Your task to perform on an android device: turn off priority inbox in the gmail app Image 0: 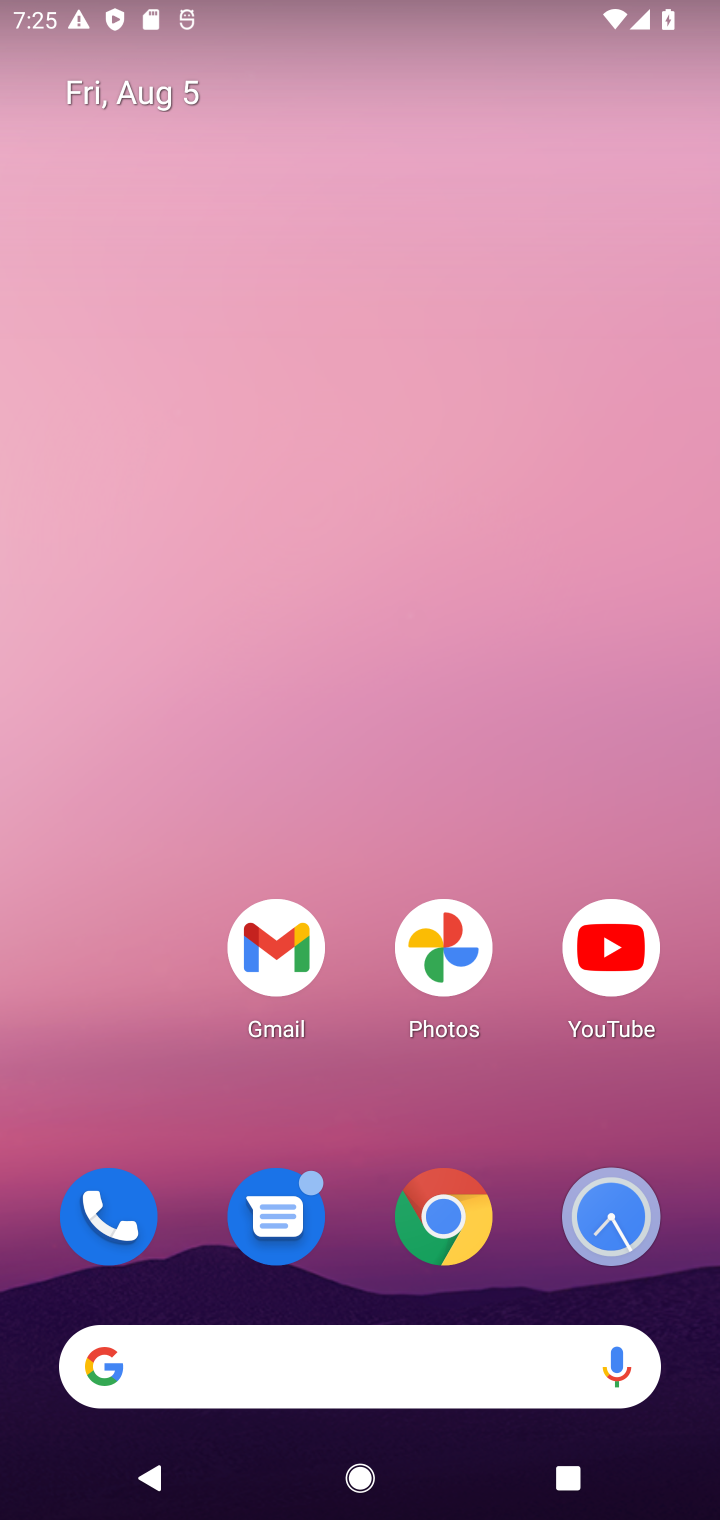
Step 0: click (251, 949)
Your task to perform on an android device: turn off priority inbox in the gmail app Image 1: 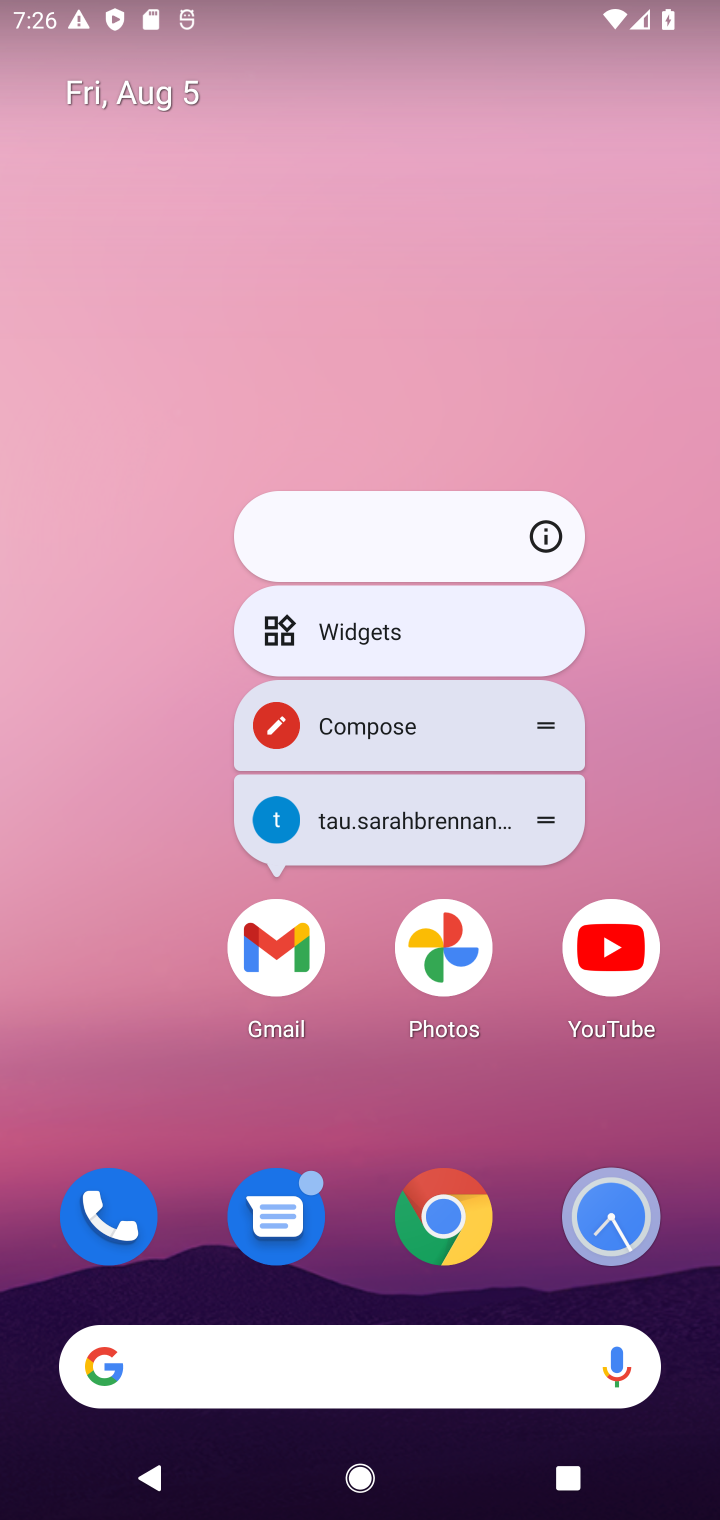
Step 1: click (284, 958)
Your task to perform on an android device: turn off priority inbox in the gmail app Image 2: 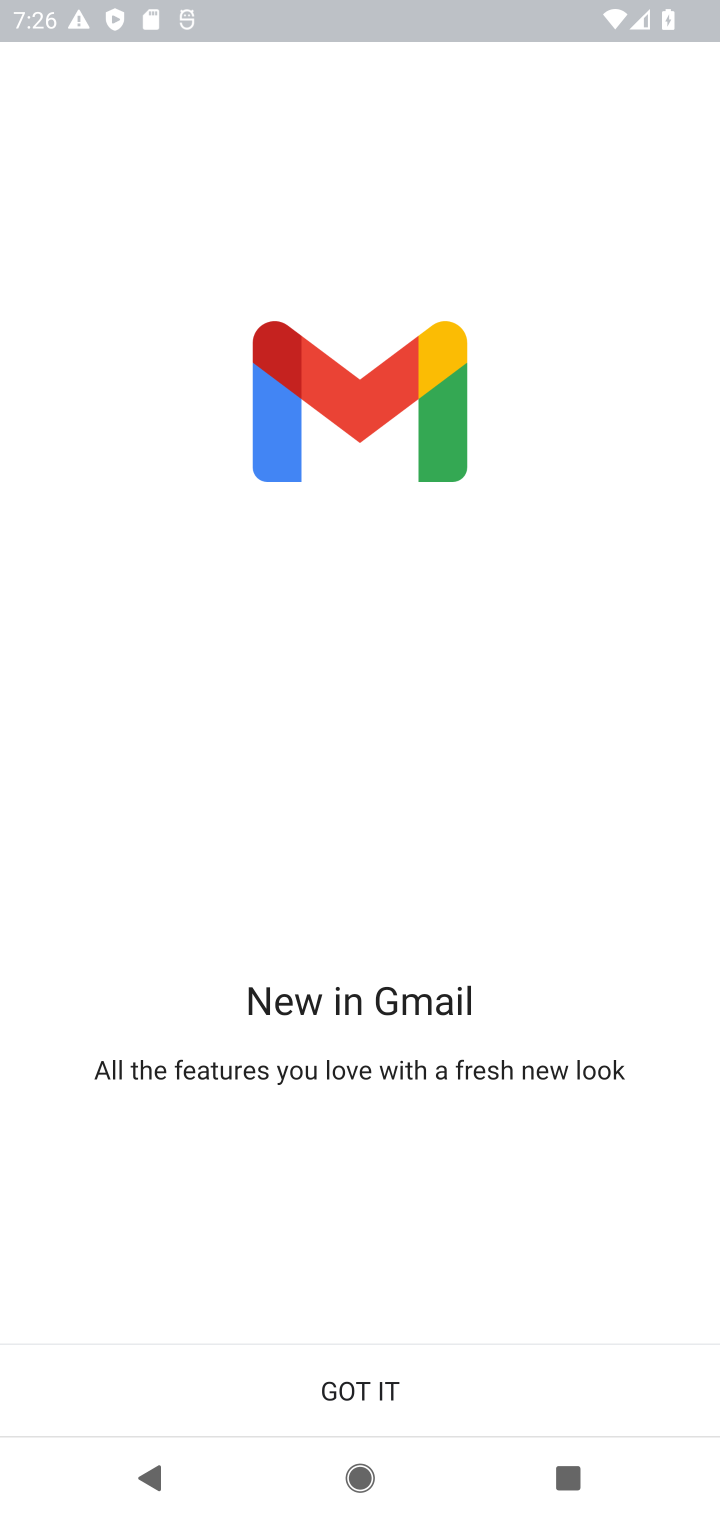
Step 2: click (470, 1379)
Your task to perform on an android device: turn off priority inbox in the gmail app Image 3: 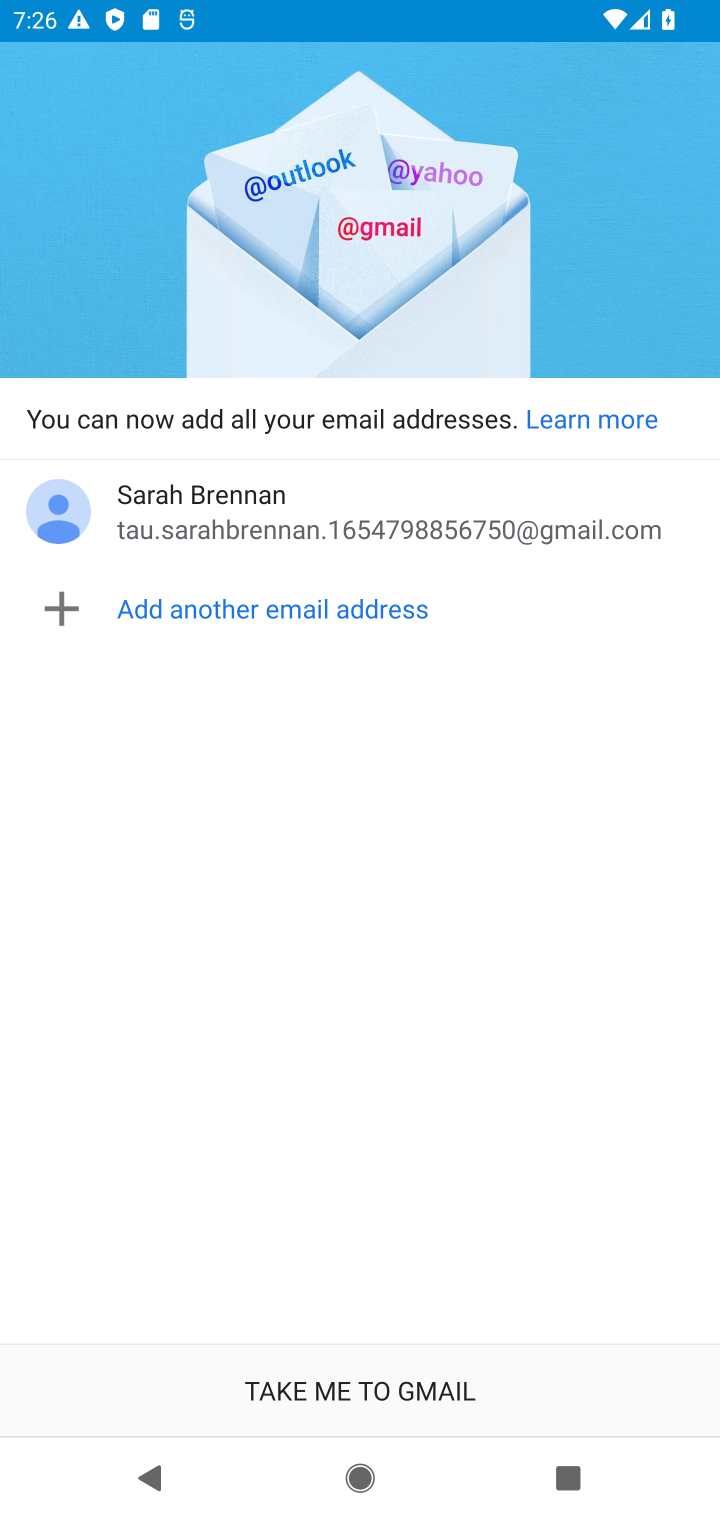
Step 3: click (470, 1379)
Your task to perform on an android device: turn off priority inbox in the gmail app Image 4: 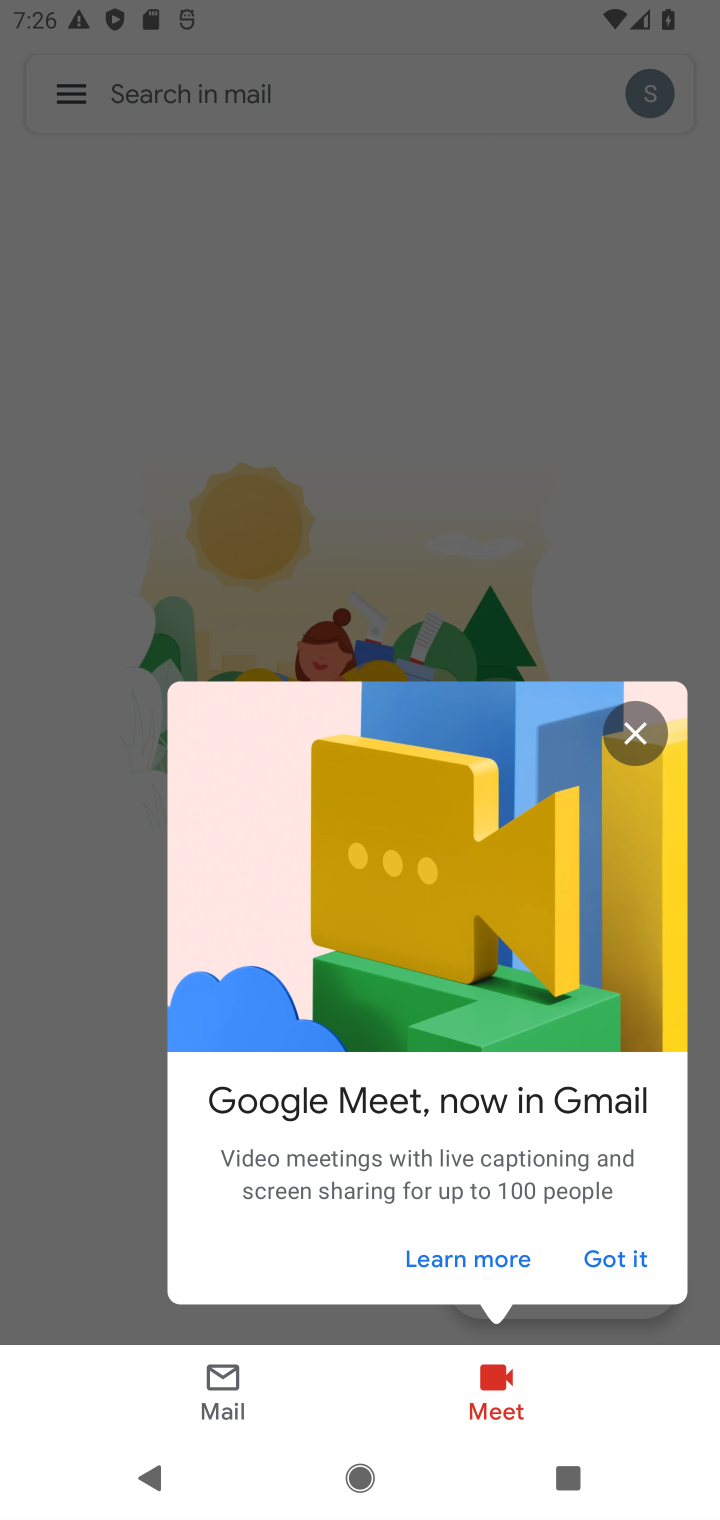
Step 4: click (622, 1259)
Your task to perform on an android device: turn off priority inbox in the gmail app Image 5: 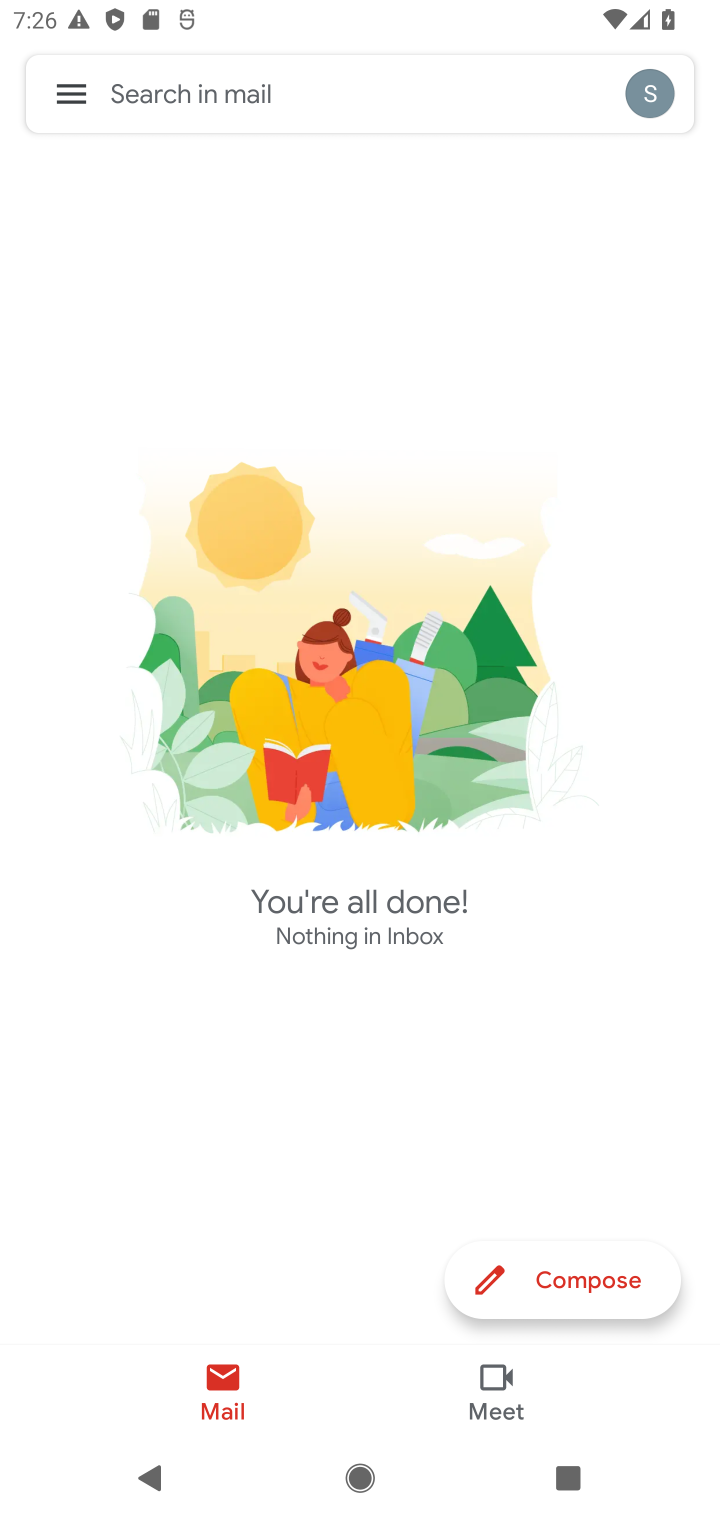
Step 5: click (67, 79)
Your task to perform on an android device: turn off priority inbox in the gmail app Image 6: 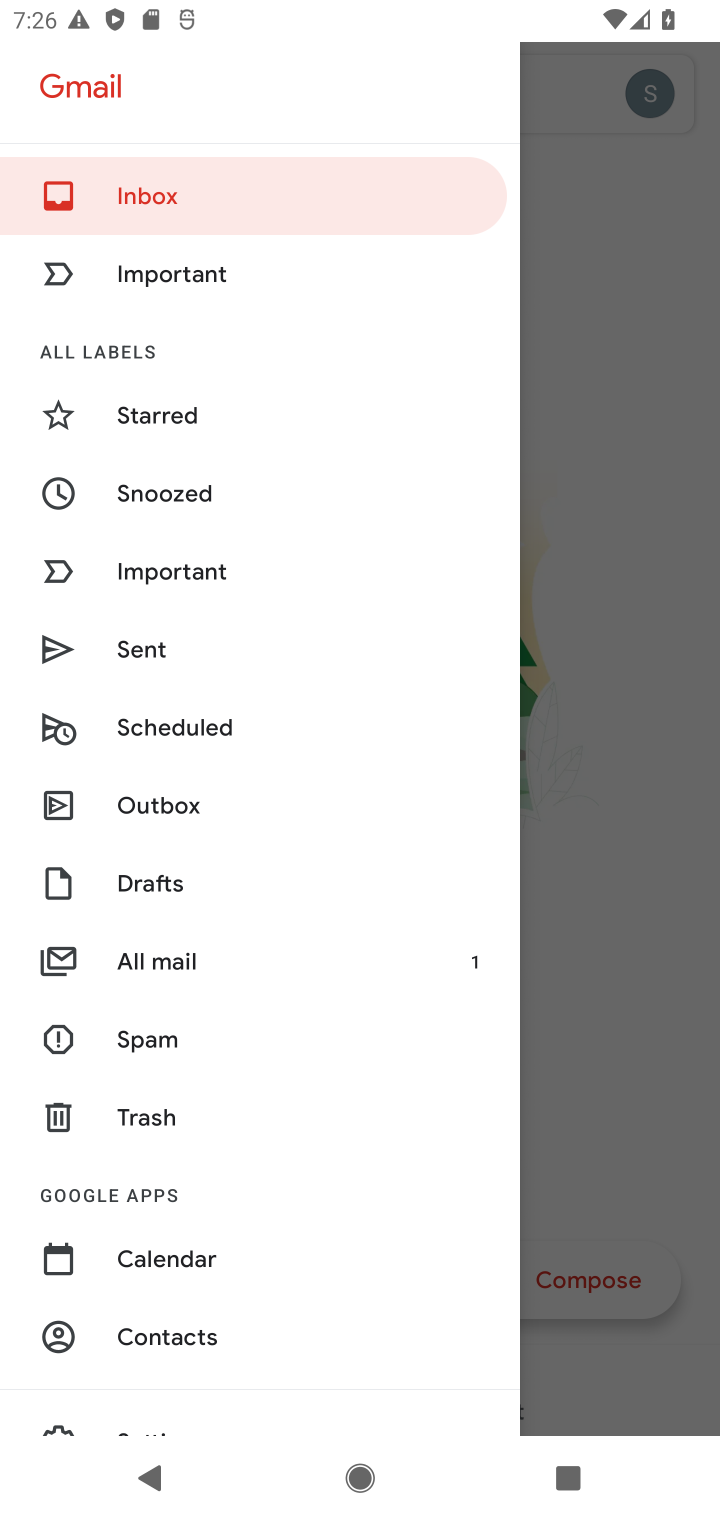
Step 6: drag from (201, 1300) to (210, 0)
Your task to perform on an android device: turn off priority inbox in the gmail app Image 7: 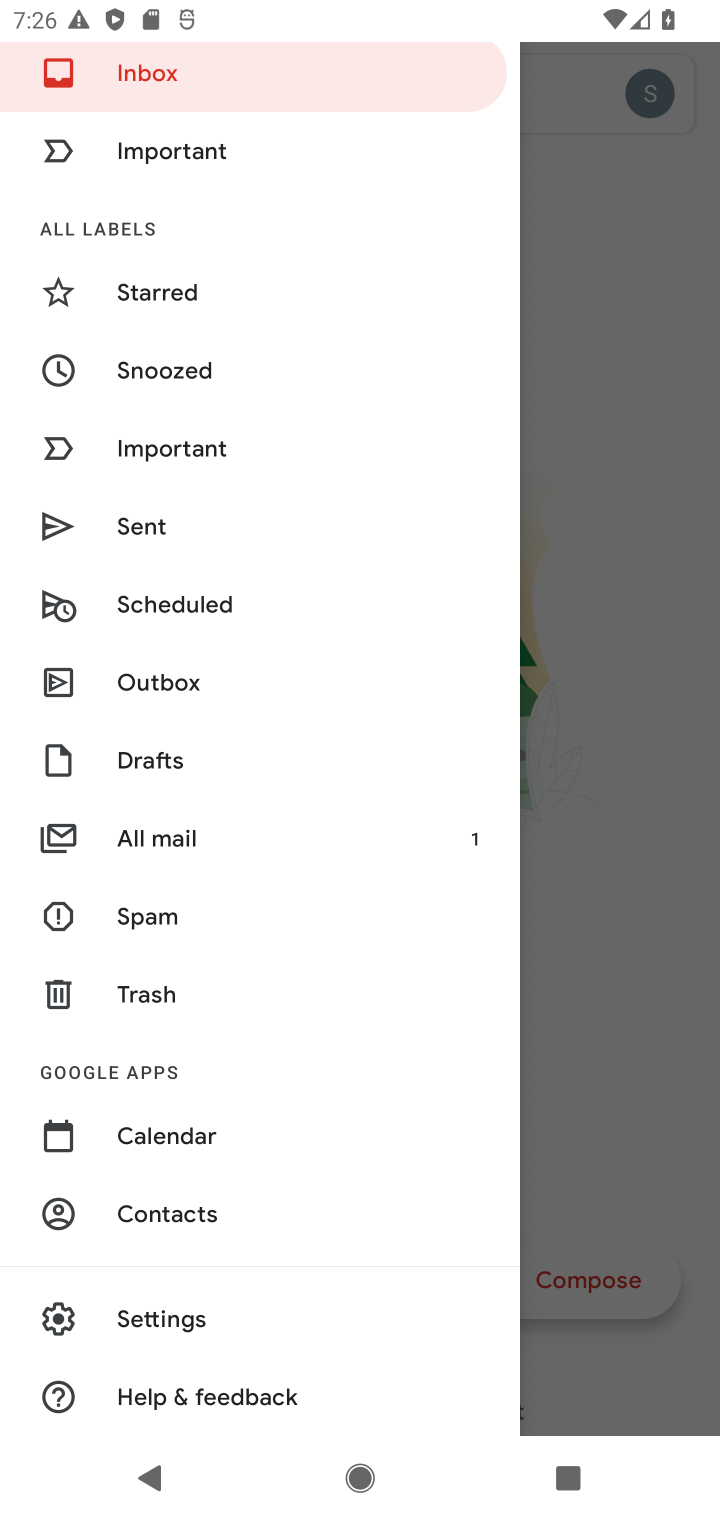
Step 7: click (218, 1297)
Your task to perform on an android device: turn off priority inbox in the gmail app Image 8: 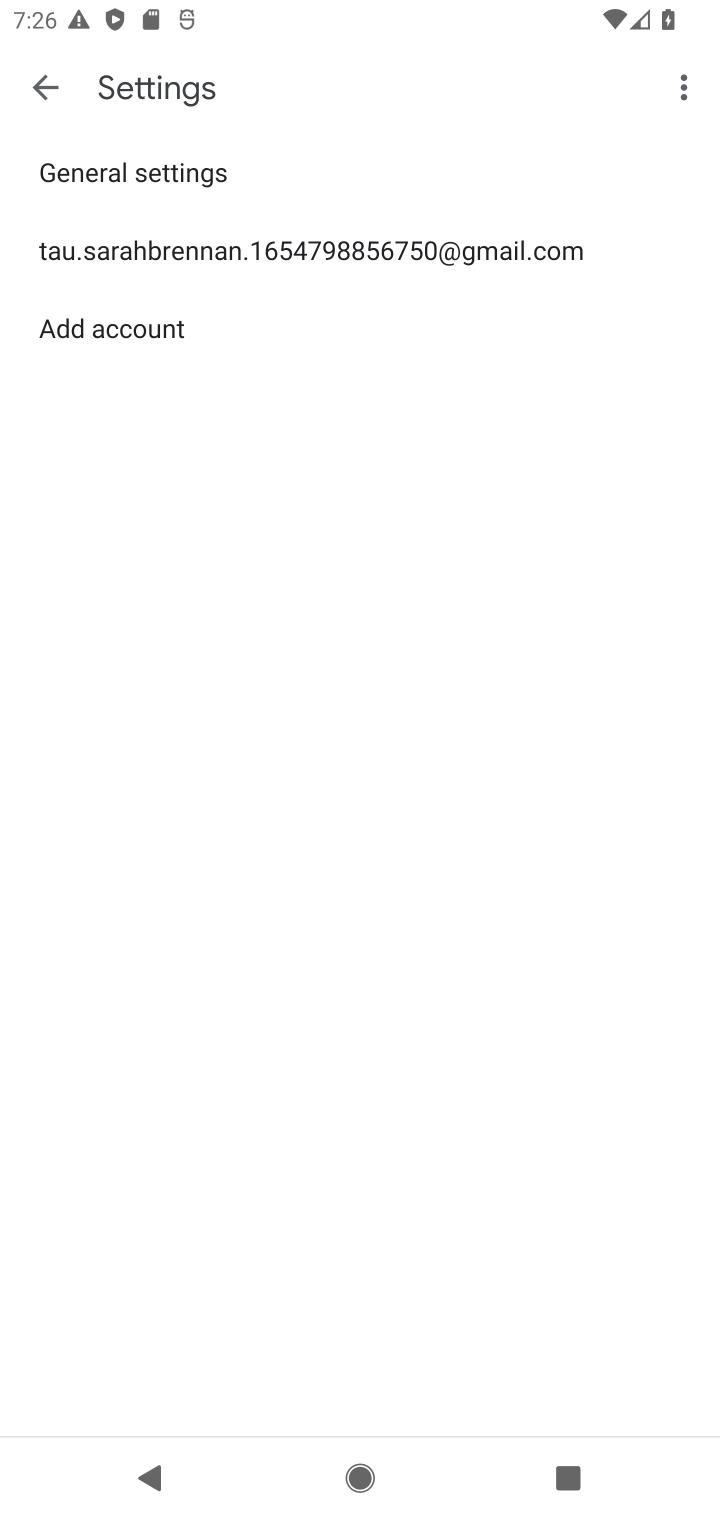
Step 8: click (345, 261)
Your task to perform on an android device: turn off priority inbox in the gmail app Image 9: 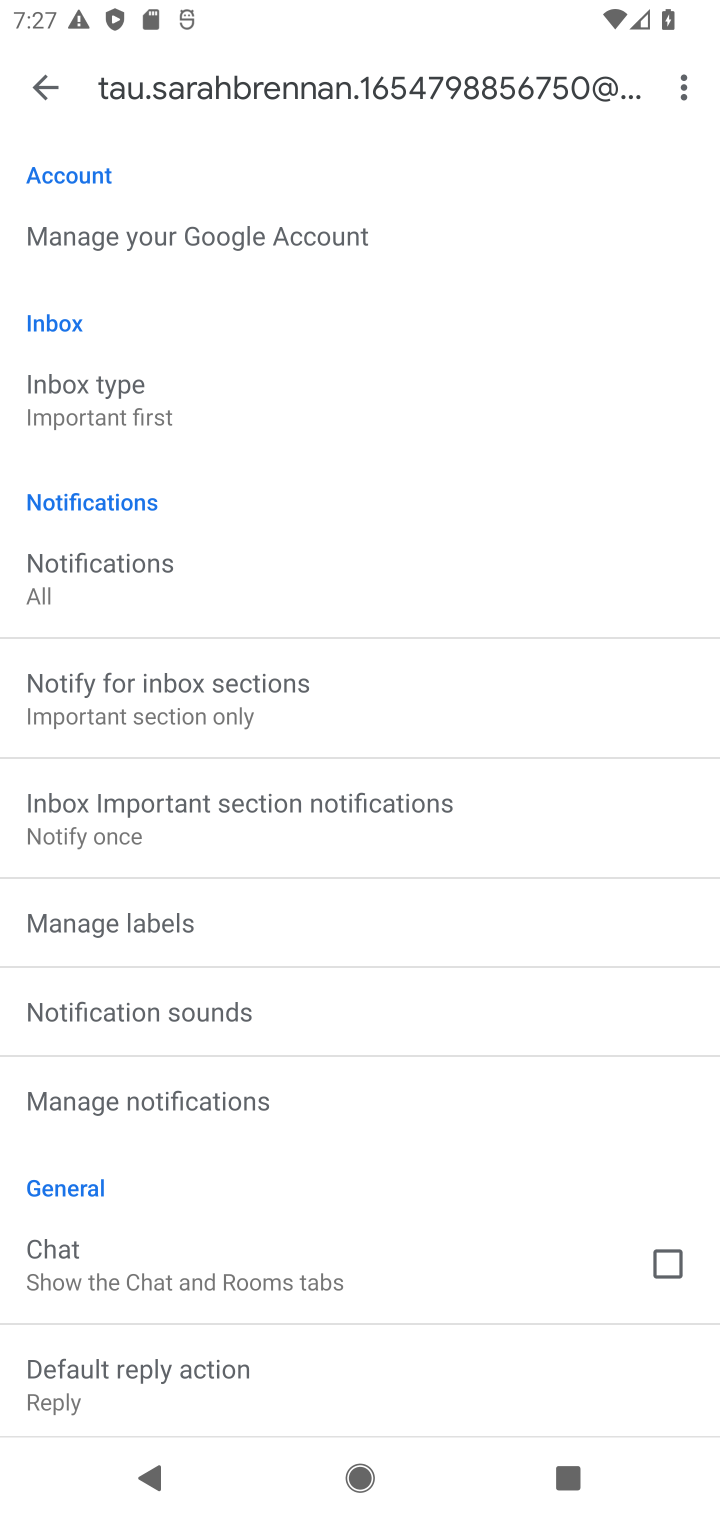
Step 9: click (76, 412)
Your task to perform on an android device: turn off priority inbox in the gmail app Image 10: 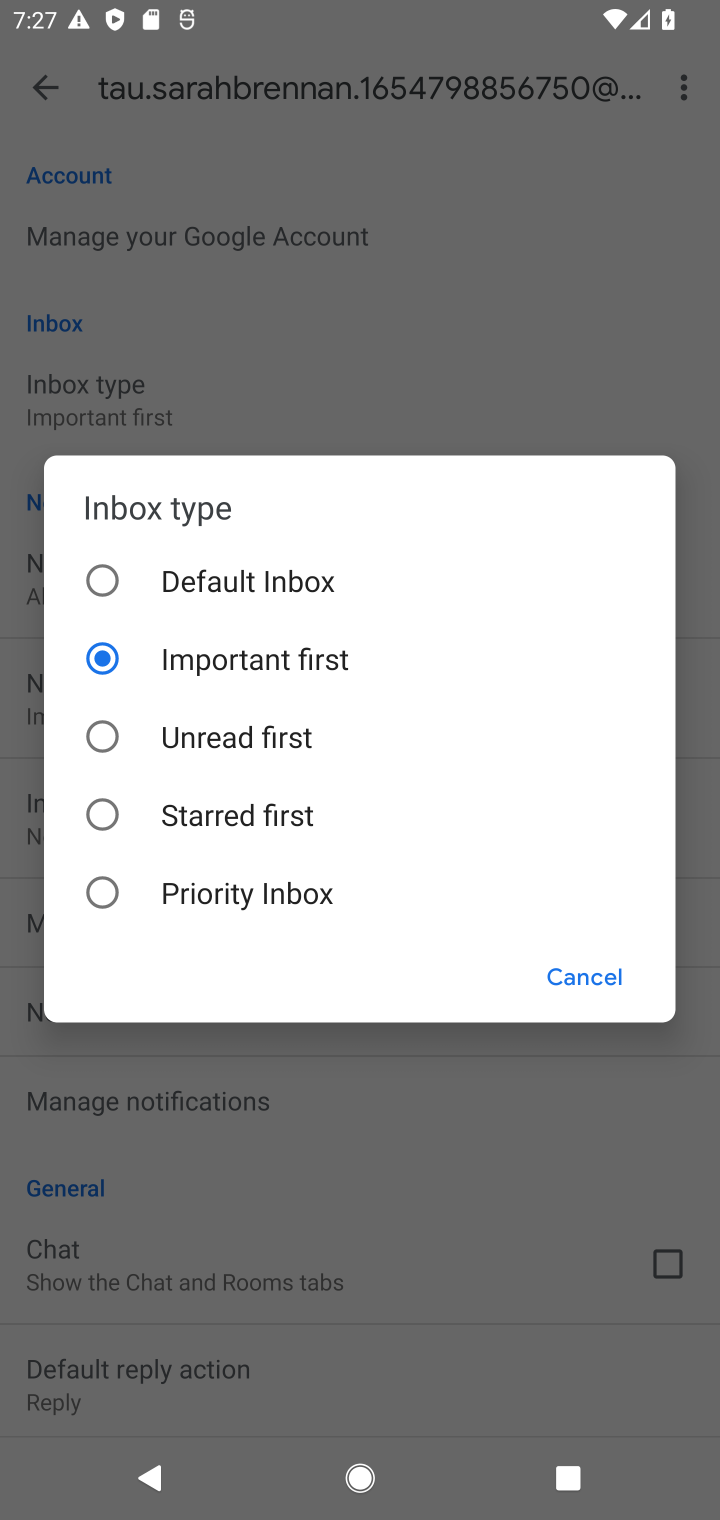
Step 10: click (251, 648)
Your task to perform on an android device: turn off priority inbox in the gmail app Image 11: 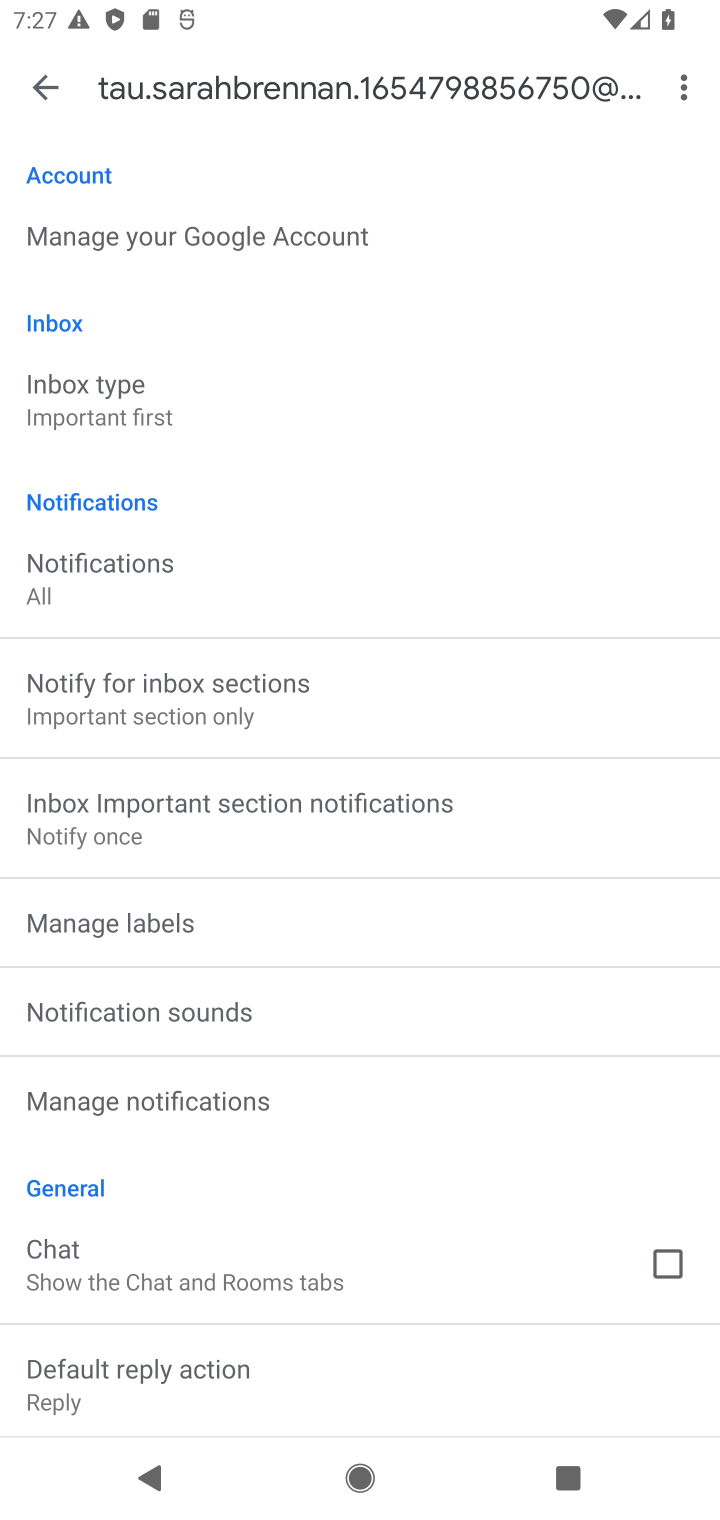
Step 11: task complete